Your task to perform on an android device: What's the weather going to be tomorrow? Image 0: 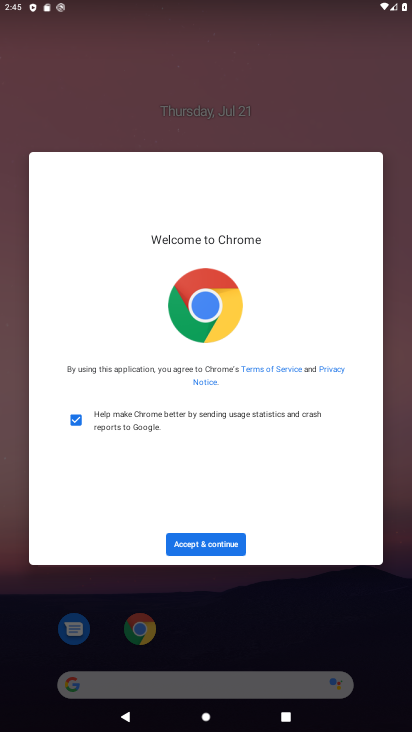
Step 0: press home button
Your task to perform on an android device: What's the weather going to be tomorrow? Image 1: 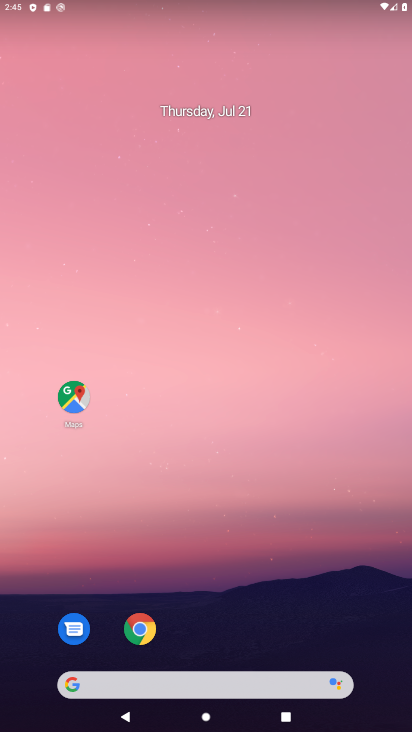
Step 1: click (200, 685)
Your task to perform on an android device: What's the weather going to be tomorrow? Image 2: 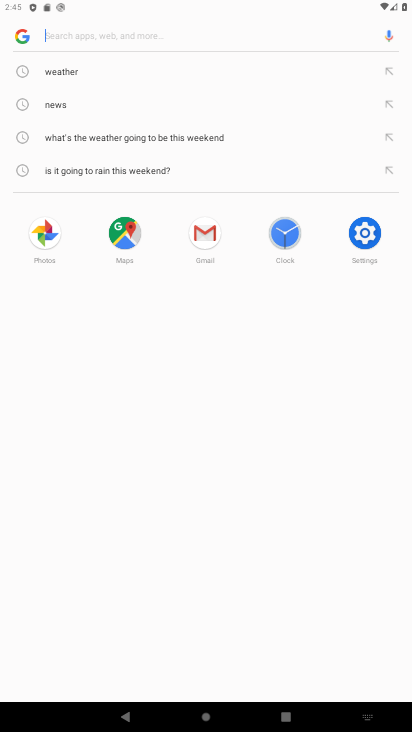
Step 2: click (64, 76)
Your task to perform on an android device: What's the weather going to be tomorrow? Image 3: 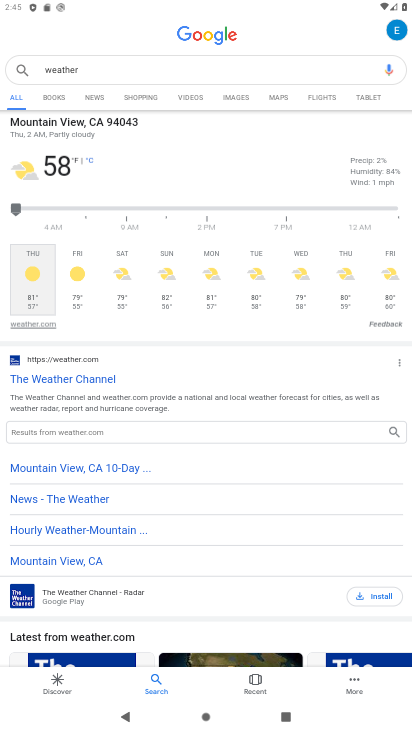
Step 3: click (81, 289)
Your task to perform on an android device: What's the weather going to be tomorrow? Image 4: 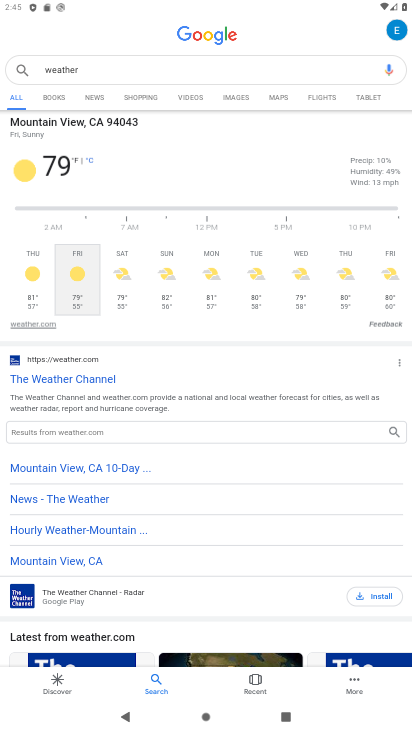
Step 4: task complete